Your task to perform on an android device: all mails in gmail Image 0: 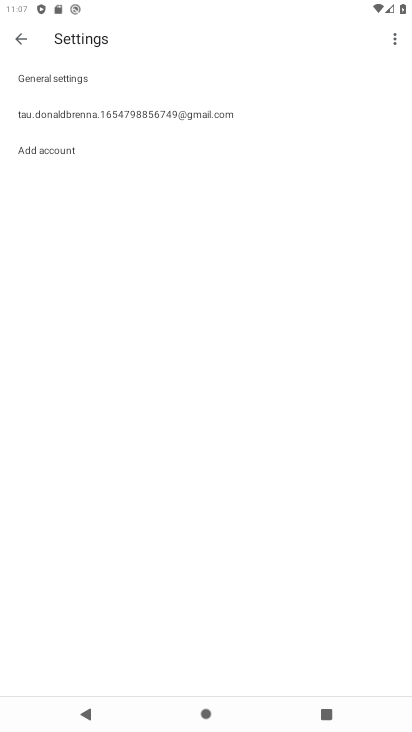
Step 0: drag from (274, 621) to (297, 81)
Your task to perform on an android device: all mails in gmail Image 1: 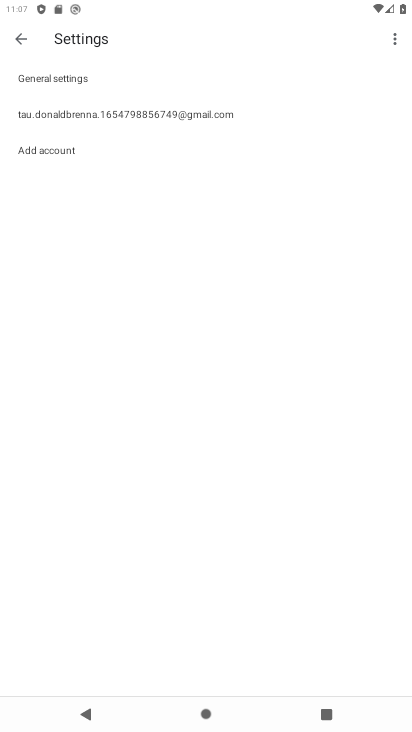
Step 1: click (9, 41)
Your task to perform on an android device: all mails in gmail Image 2: 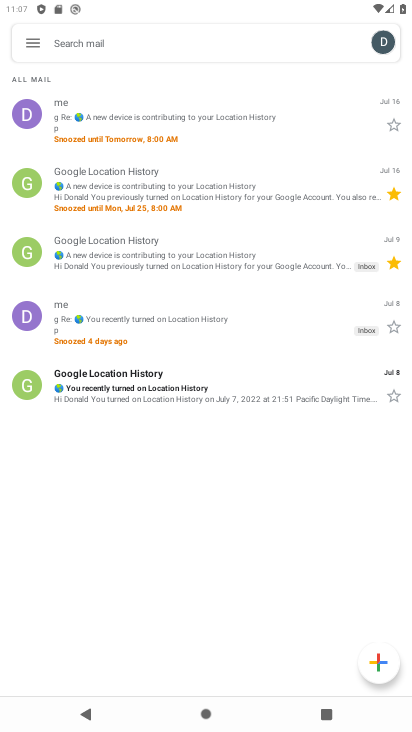
Step 2: click (38, 42)
Your task to perform on an android device: all mails in gmail Image 3: 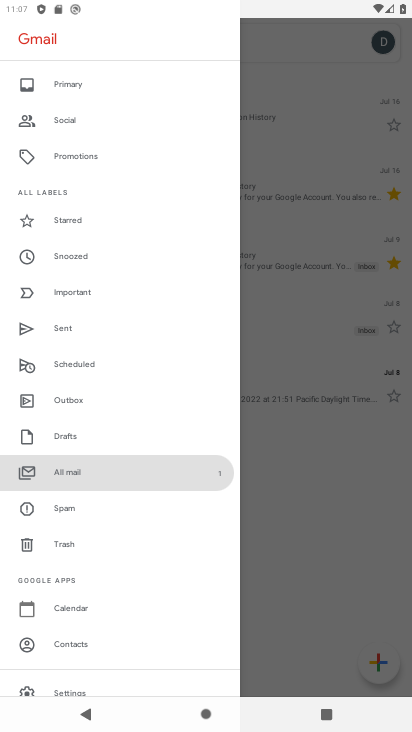
Step 3: click (67, 466)
Your task to perform on an android device: all mails in gmail Image 4: 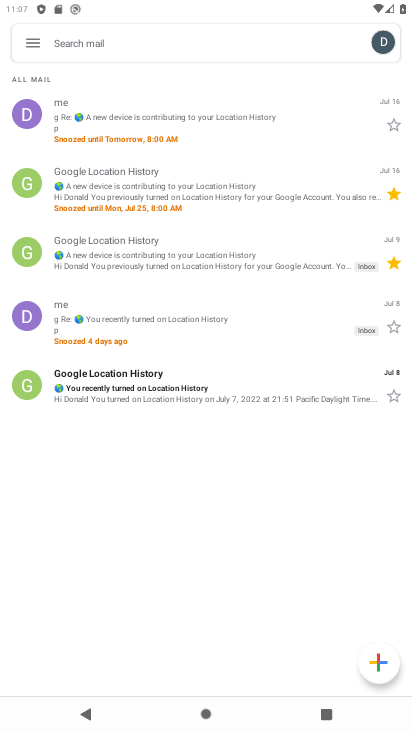
Step 4: task complete